Your task to perform on an android device: stop showing notifications on the lock screen Image 0: 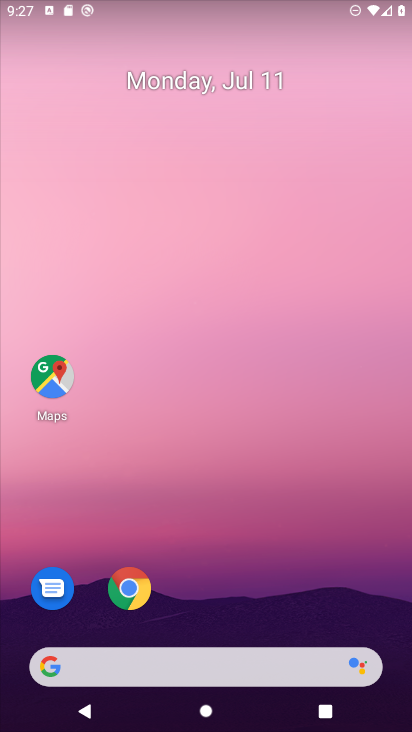
Step 0: drag from (397, 661) to (233, 60)
Your task to perform on an android device: stop showing notifications on the lock screen Image 1: 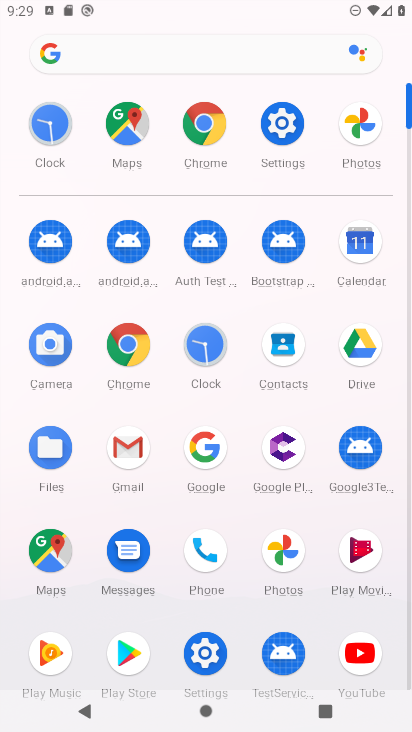
Step 1: click (286, 118)
Your task to perform on an android device: stop showing notifications on the lock screen Image 2: 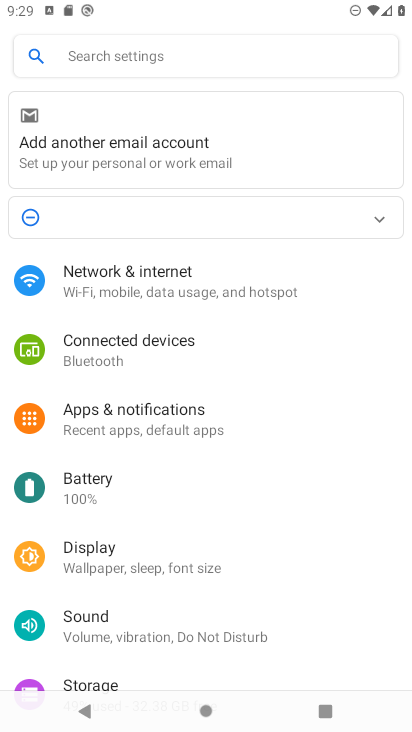
Step 2: click (130, 403)
Your task to perform on an android device: stop showing notifications on the lock screen Image 3: 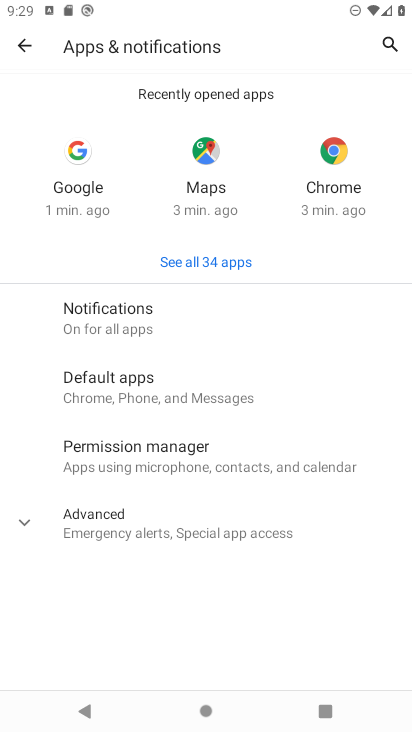
Step 3: click (91, 531)
Your task to perform on an android device: stop showing notifications on the lock screen Image 4: 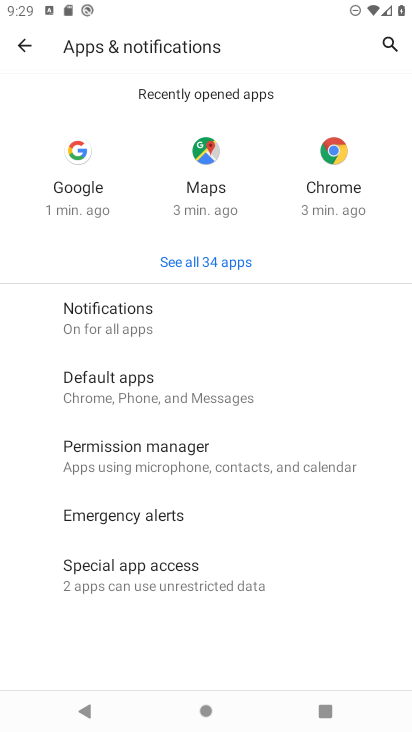
Step 4: click (115, 337)
Your task to perform on an android device: stop showing notifications on the lock screen Image 5: 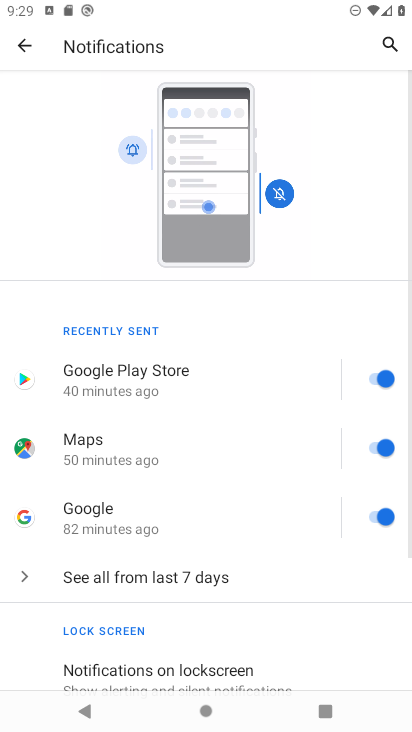
Step 5: click (190, 659)
Your task to perform on an android device: stop showing notifications on the lock screen Image 6: 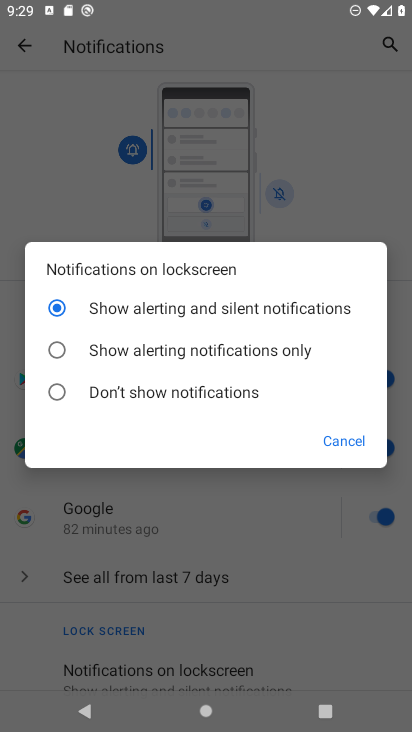
Step 6: click (48, 388)
Your task to perform on an android device: stop showing notifications on the lock screen Image 7: 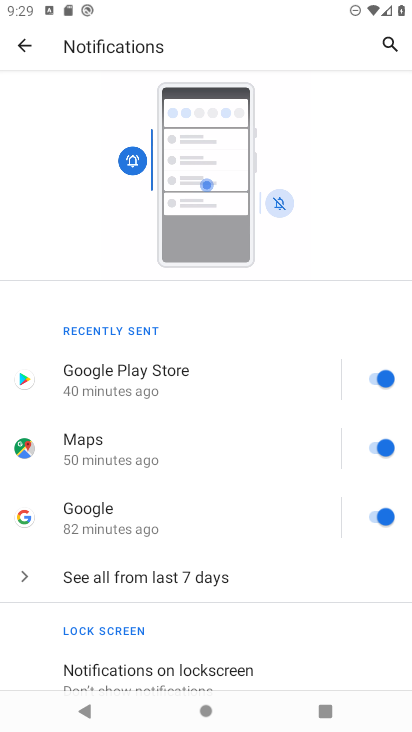
Step 7: task complete